Your task to perform on an android device: Search for "lg ultragear" on costco, select the first entry, and add it to the cart. Image 0: 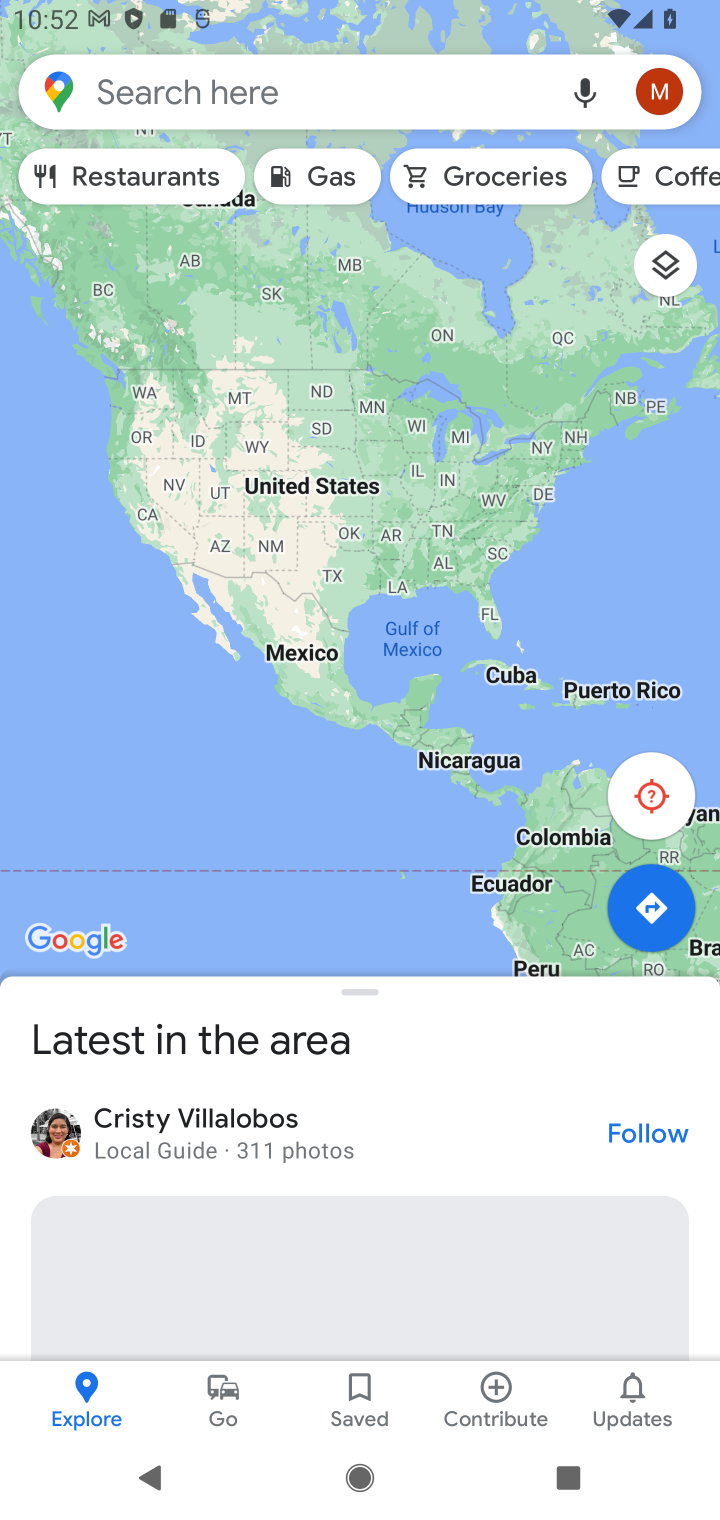
Step 0: press home button
Your task to perform on an android device: Search for "lg ultragear" on costco, select the first entry, and add it to the cart. Image 1: 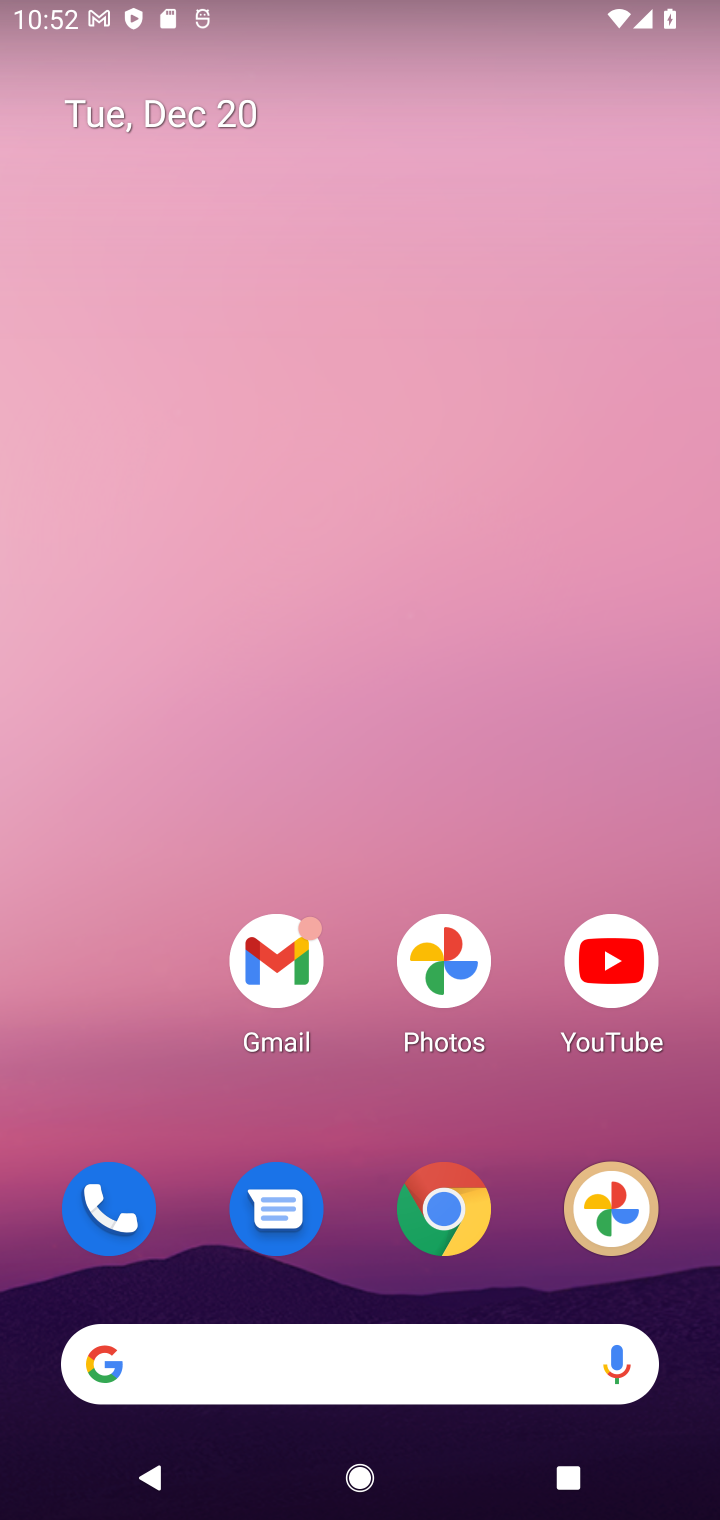
Step 1: click (447, 1209)
Your task to perform on an android device: Search for "lg ultragear" on costco, select the first entry, and add it to the cart. Image 2: 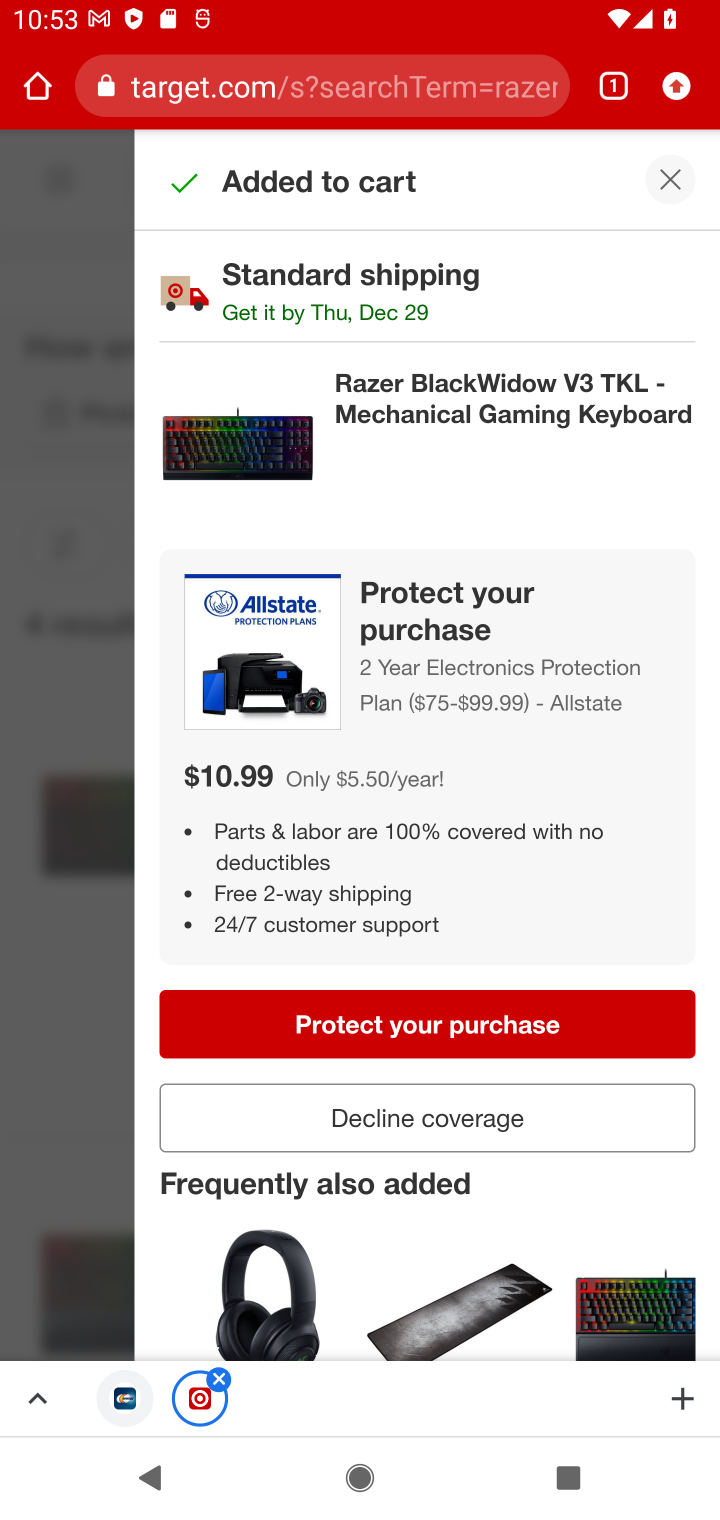
Step 2: click (227, 100)
Your task to perform on an android device: Search for "lg ultragear" on costco, select the first entry, and add it to the cart. Image 3: 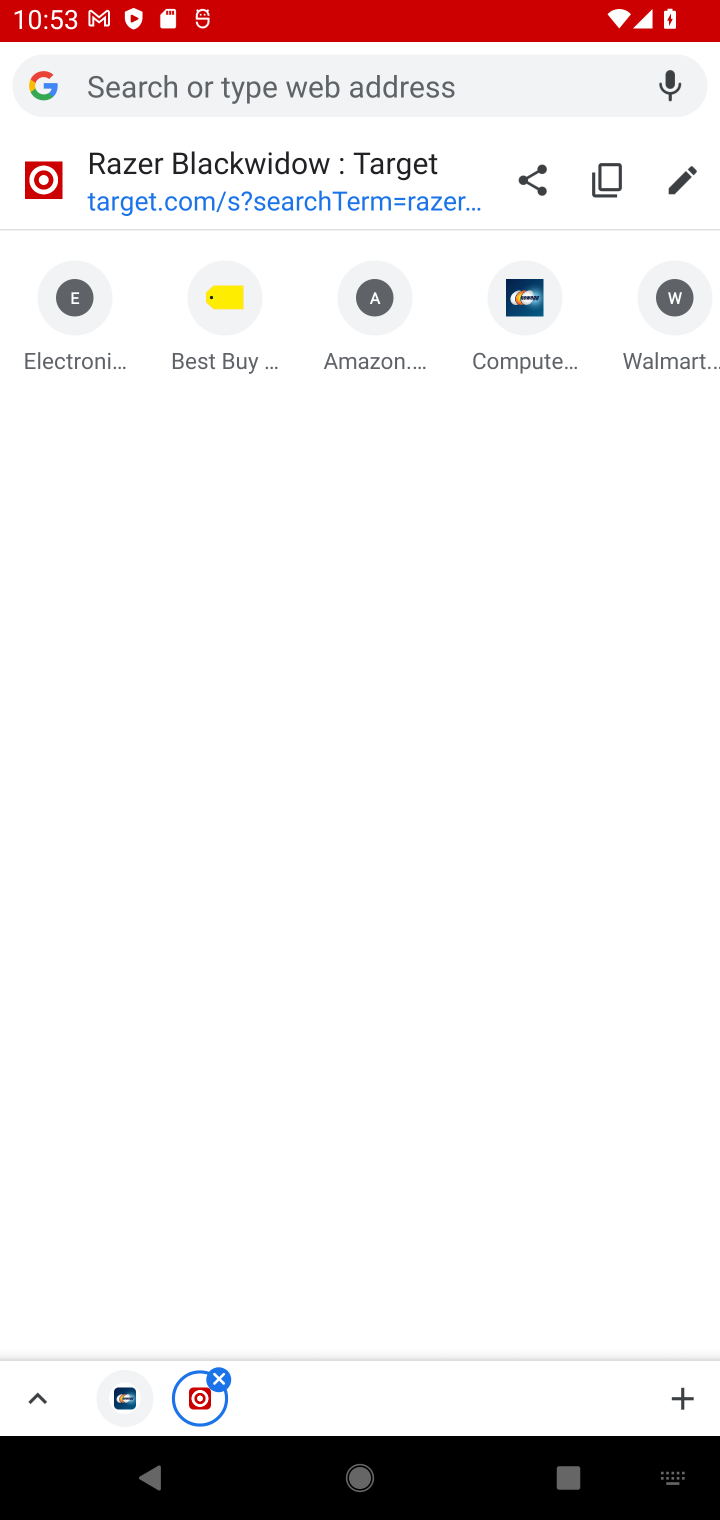
Step 3: type "costco.com"
Your task to perform on an android device: Search for "lg ultragear" on costco, select the first entry, and add it to the cart. Image 4: 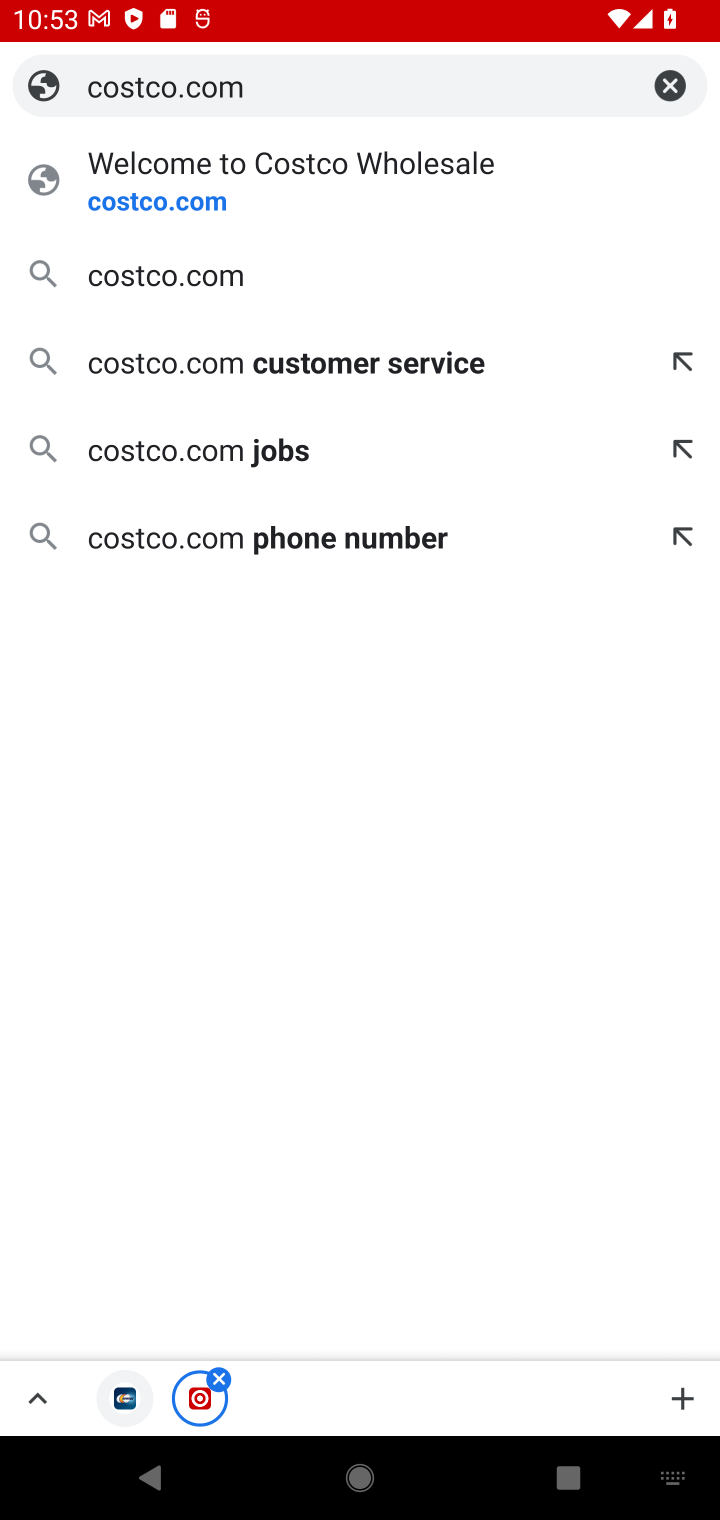
Step 4: click (147, 210)
Your task to perform on an android device: Search for "lg ultragear" on costco, select the first entry, and add it to the cart. Image 5: 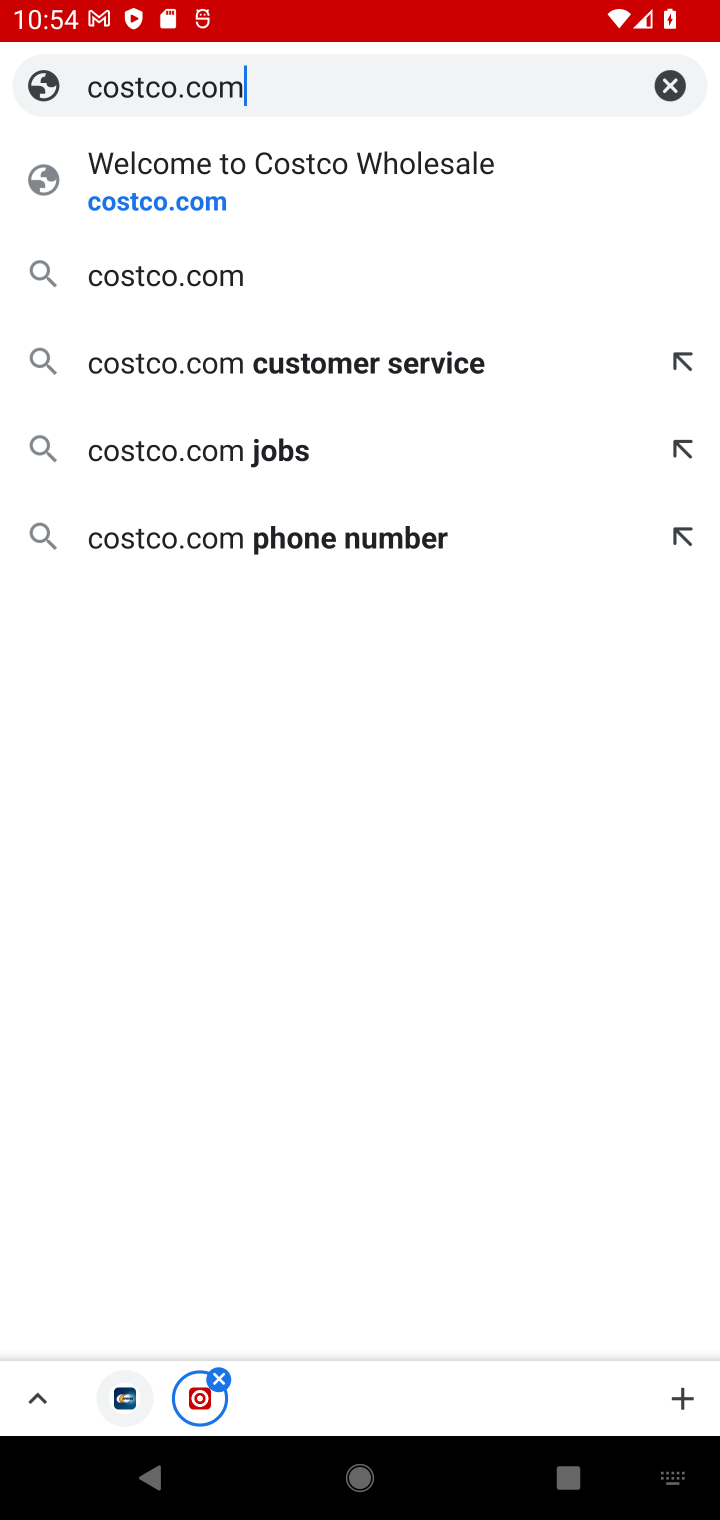
Step 5: click (113, 194)
Your task to perform on an android device: Search for "lg ultragear" on costco, select the first entry, and add it to the cart. Image 6: 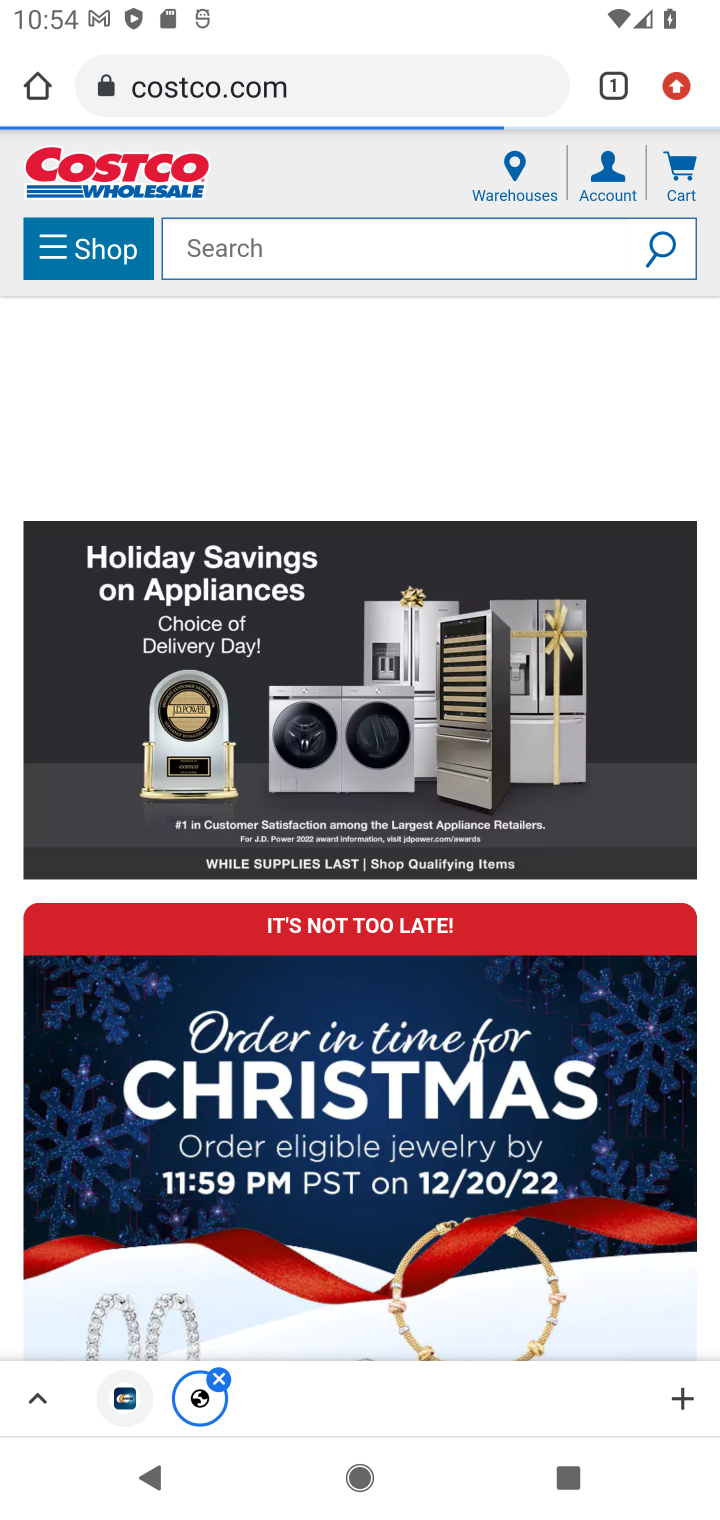
Step 6: click (202, 250)
Your task to perform on an android device: Search for "lg ultragear" on costco, select the first entry, and add it to the cart. Image 7: 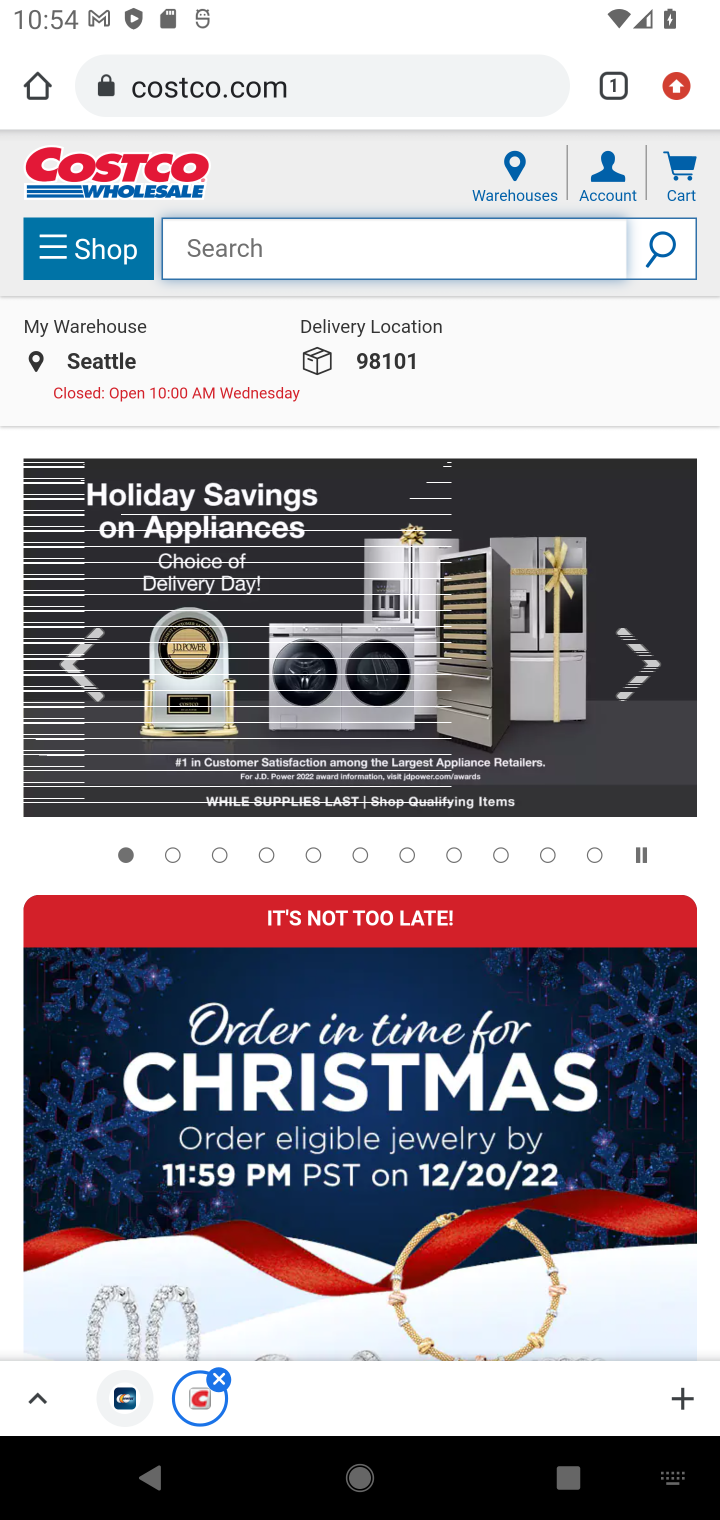
Step 7: type "lg ultragear"
Your task to perform on an android device: Search for "lg ultragear" on costco, select the first entry, and add it to the cart. Image 8: 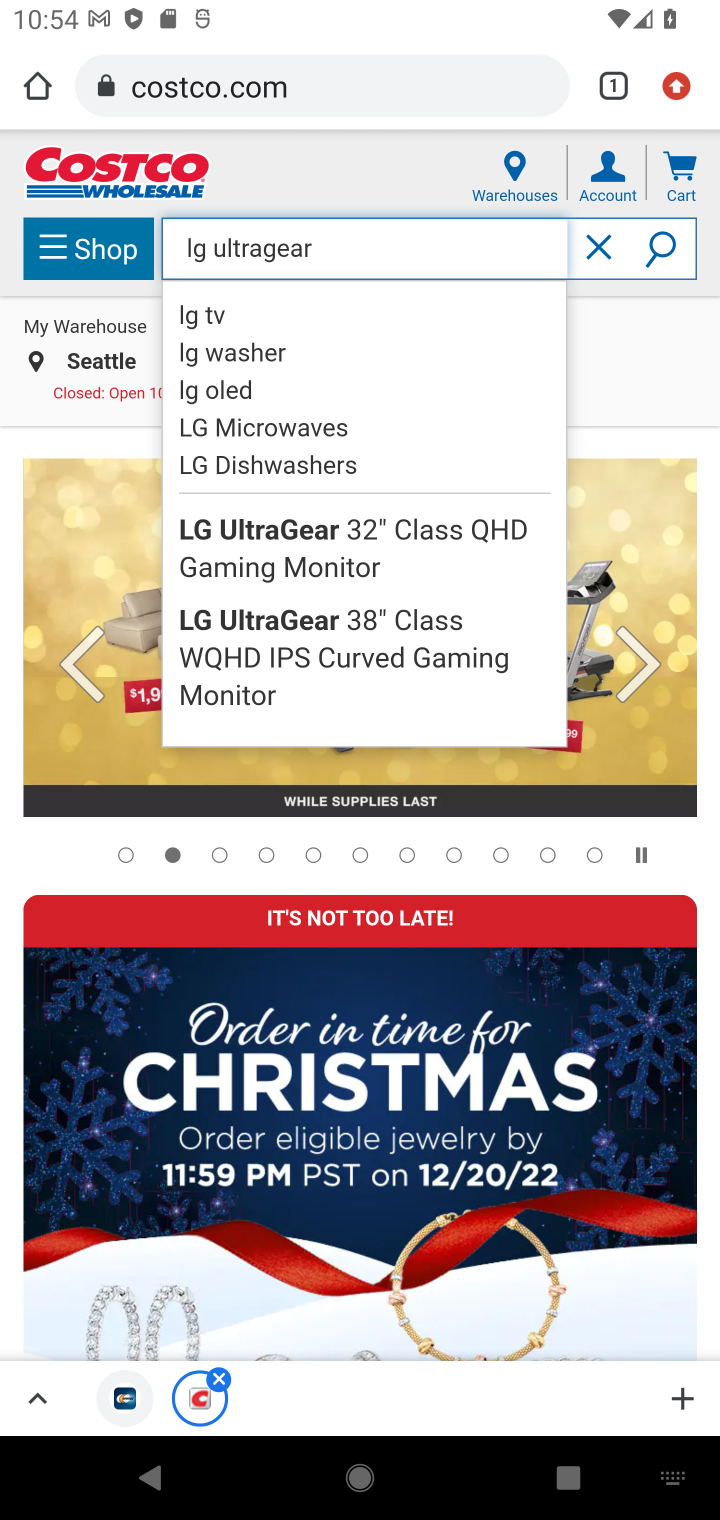
Step 8: click (656, 240)
Your task to perform on an android device: Search for "lg ultragear" on costco, select the first entry, and add it to the cart. Image 9: 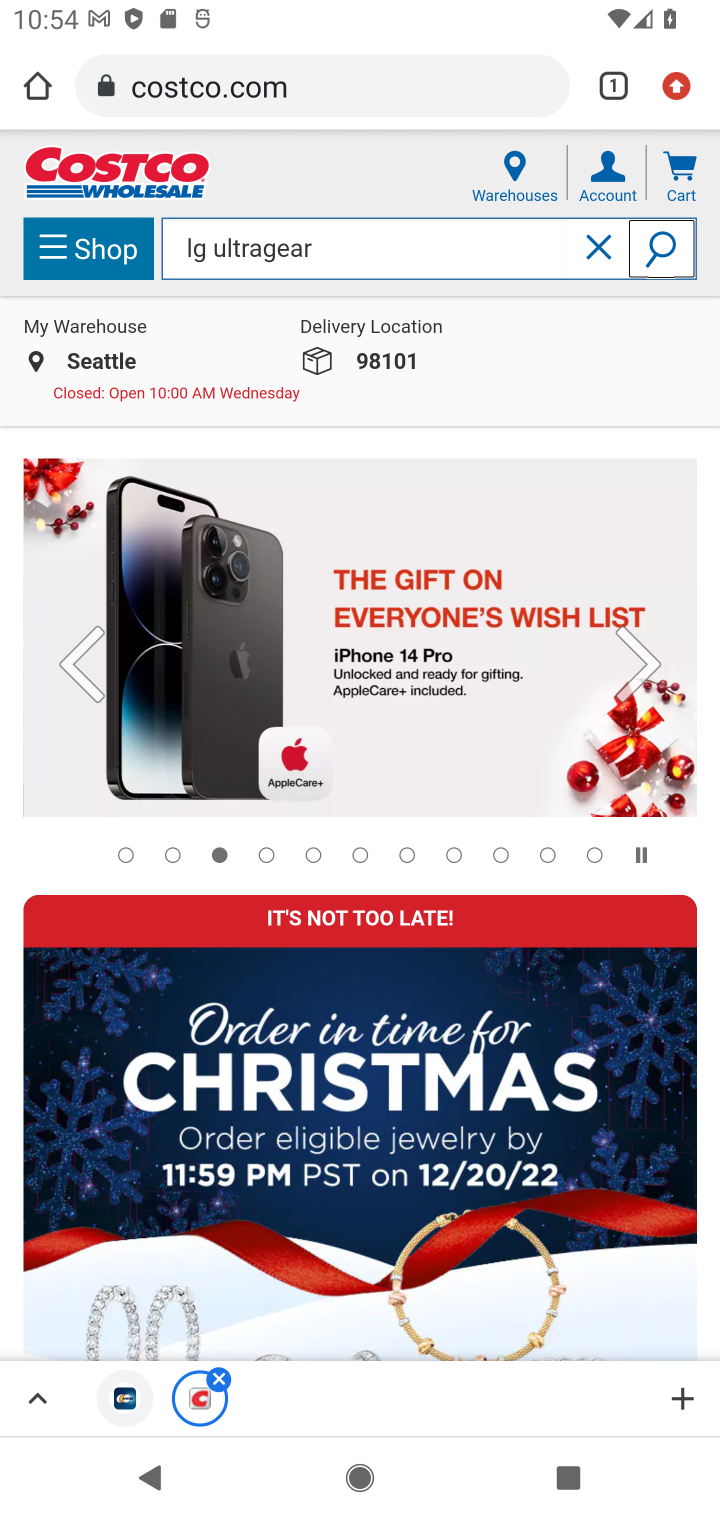
Step 9: click (663, 245)
Your task to perform on an android device: Search for "lg ultragear" on costco, select the first entry, and add it to the cart. Image 10: 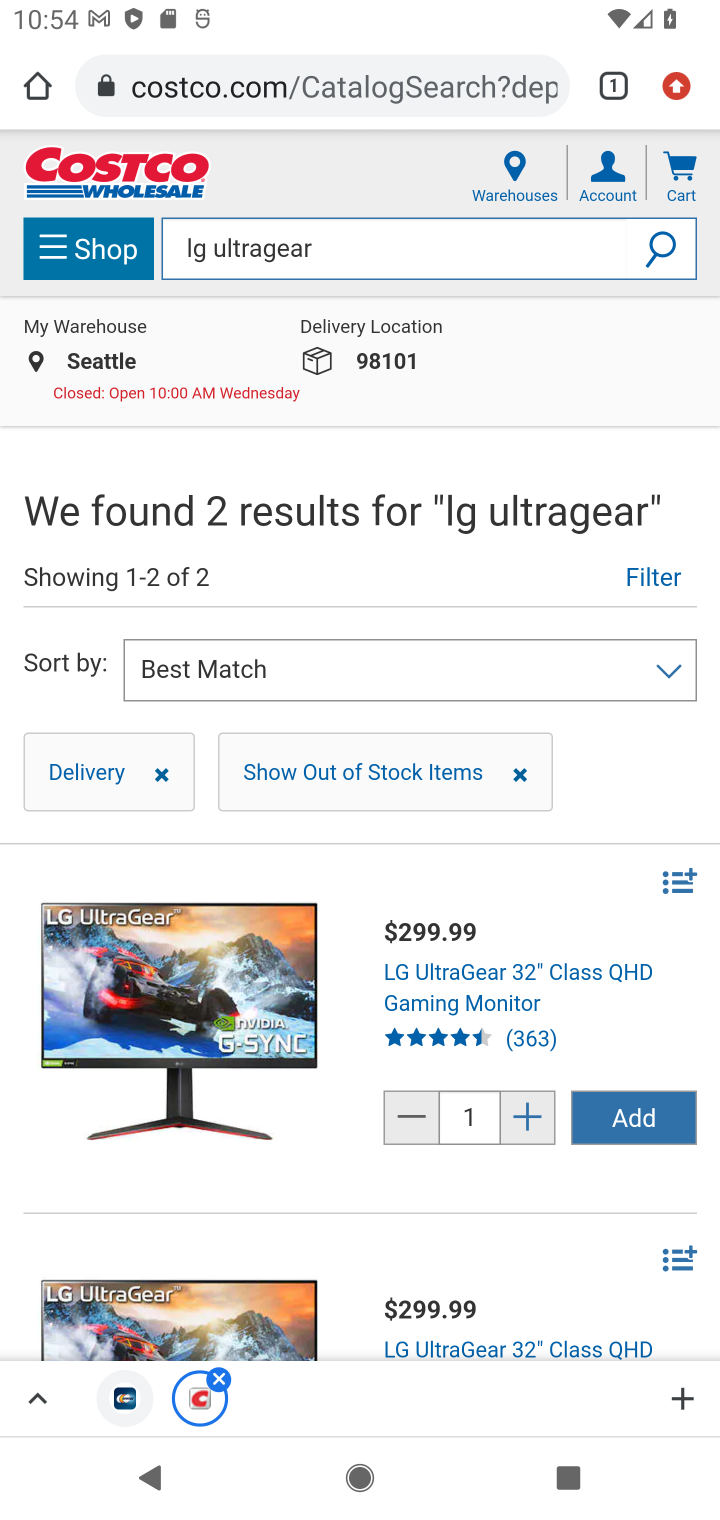
Step 10: click (636, 1106)
Your task to perform on an android device: Search for "lg ultragear" on costco, select the first entry, and add it to the cart. Image 11: 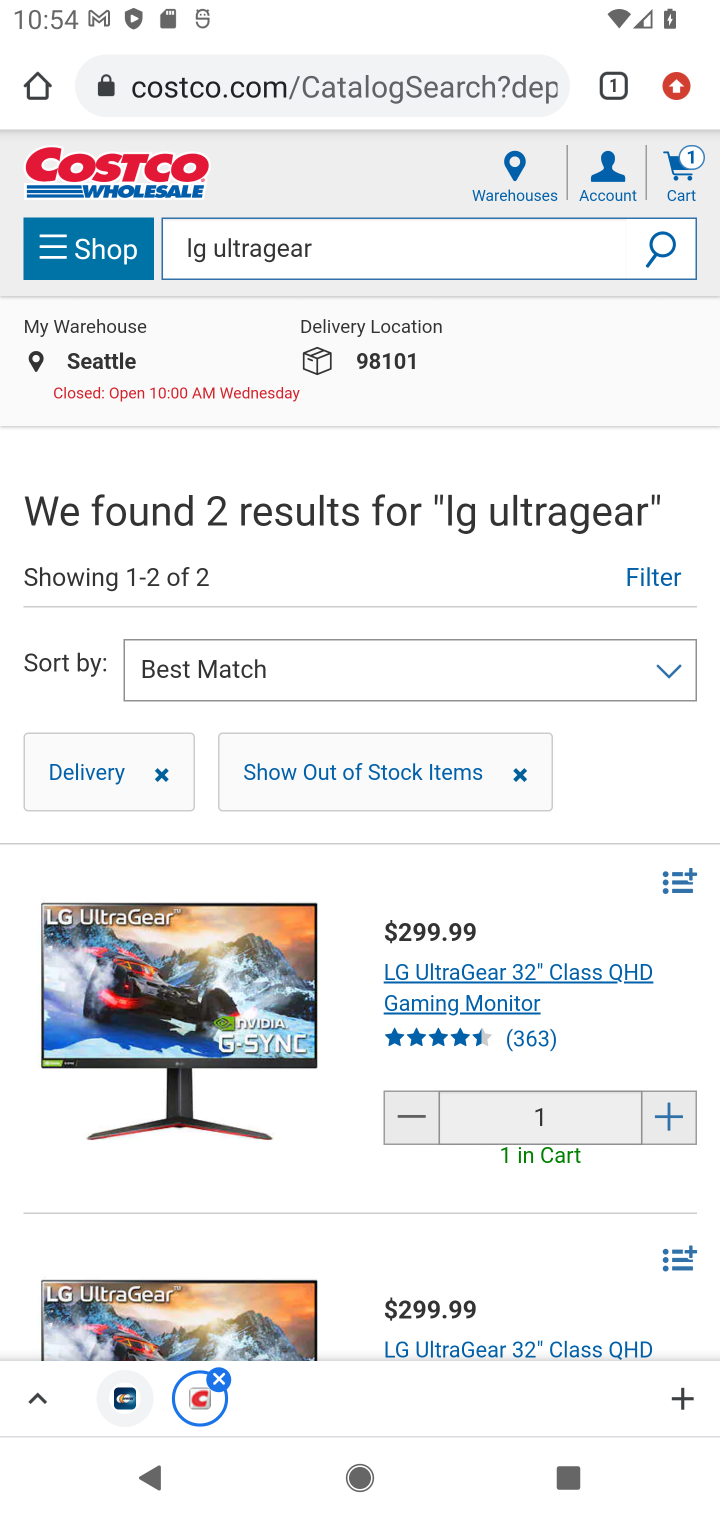
Step 11: task complete